Your task to perform on an android device: Go to eBay Image 0: 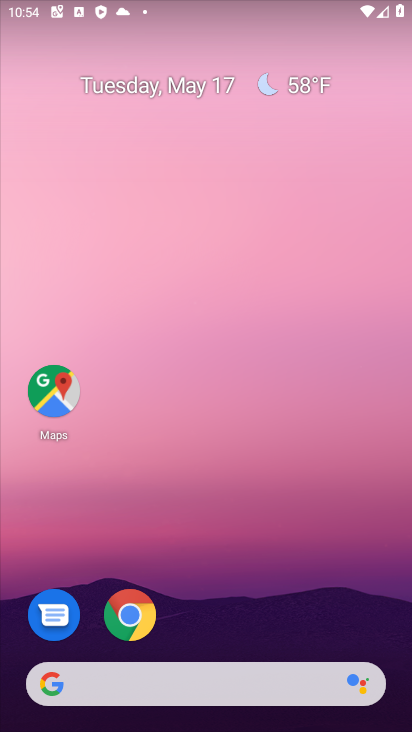
Step 0: click (127, 624)
Your task to perform on an android device: Go to eBay Image 1: 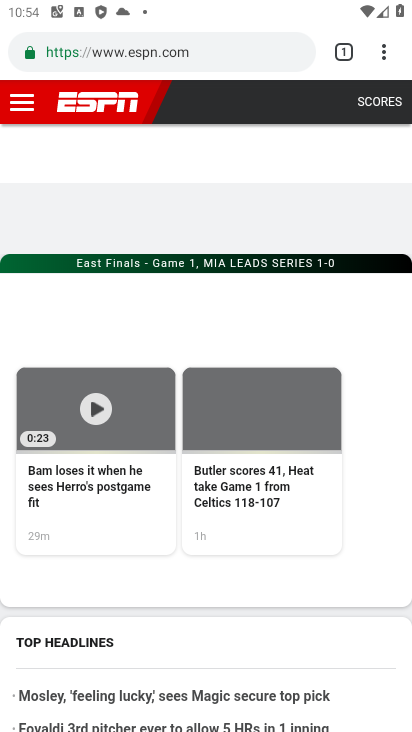
Step 1: click (146, 47)
Your task to perform on an android device: Go to eBay Image 2: 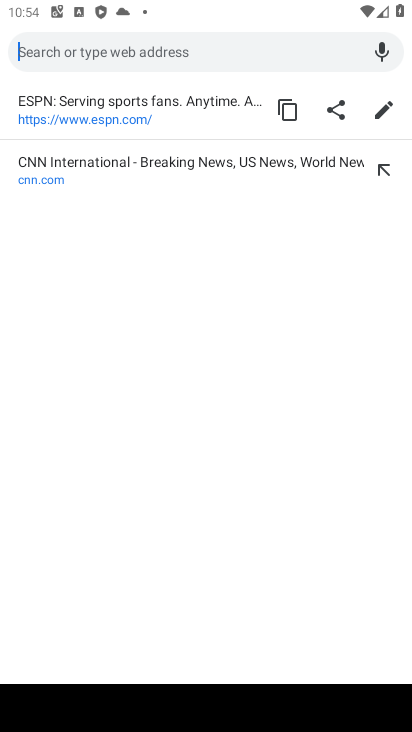
Step 2: type "ebay"
Your task to perform on an android device: Go to eBay Image 3: 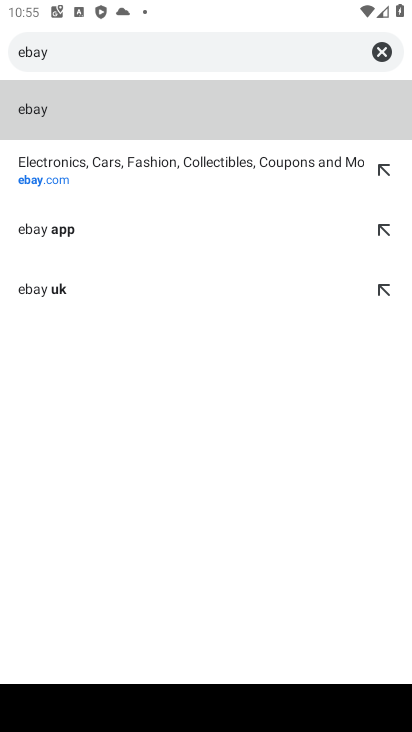
Step 3: click (87, 166)
Your task to perform on an android device: Go to eBay Image 4: 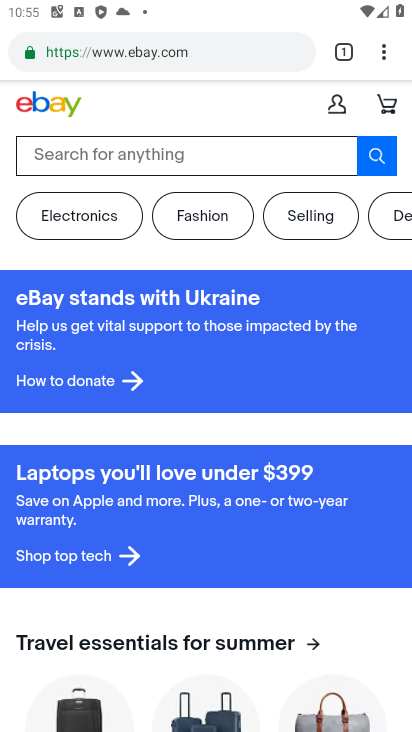
Step 4: task complete